Your task to perform on an android device: stop showing notifications on the lock screen Image 0: 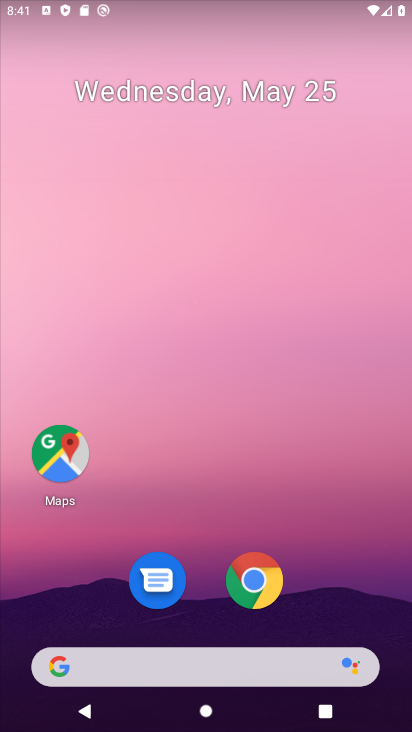
Step 0: drag from (6, 556) to (221, 56)
Your task to perform on an android device: stop showing notifications on the lock screen Image 1: 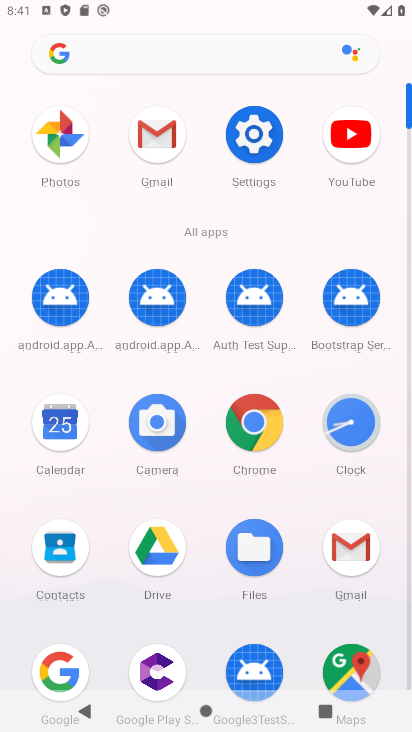
Step 1: click (267, 140)
Your task to perform on an android device: stop showing notifications on the lock screen Image 2: 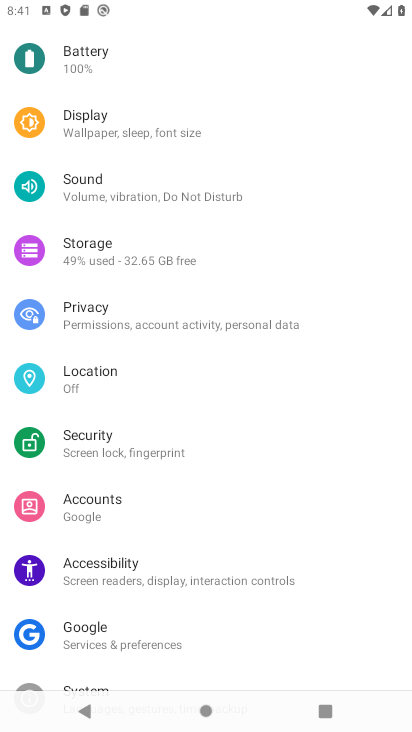
Step 2: drag from (62, 89) to (105, 666)
Your task to perform on an android device: stop showing notifications on the lock screen Image 3: 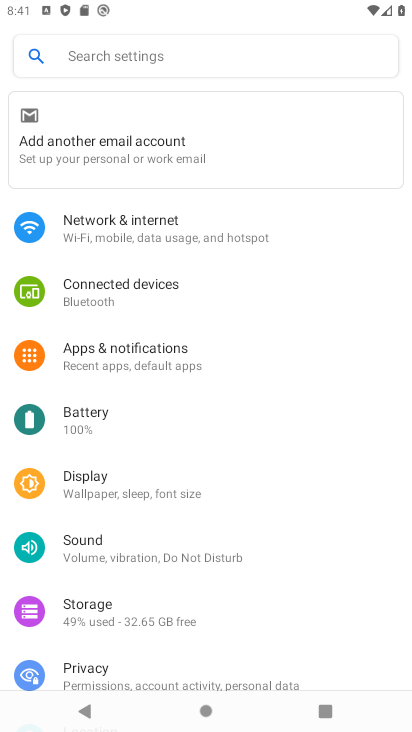
Step 3: click (120, 342)
Your task to perform on an android device: stop showing notifications on the lock screen Image 4: 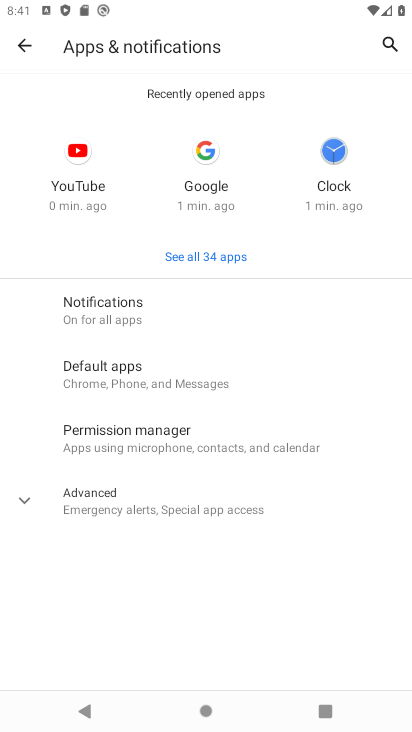
Step 4: click (134, 307)
Your task to perform on an android device: stop showing notifications on the lock screen Image 5: 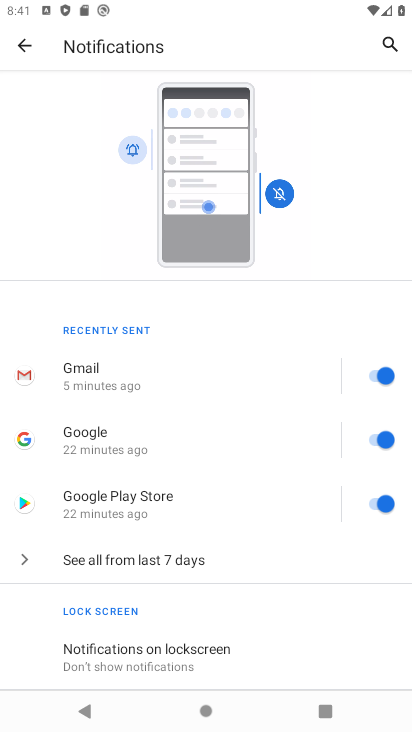
Step 5: click (204, 666)
Your task to perform on an android device: stop showing notifications on the lock screen Image 6: 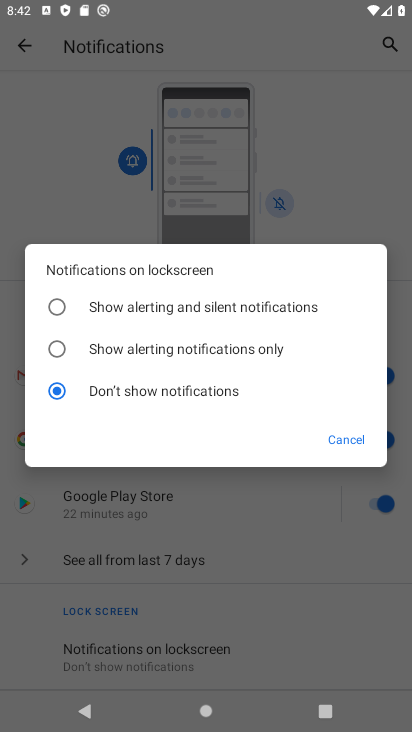
Step 6: task complete